Your task to perform on an android device: Show me the alarms in the clock app Image 0: 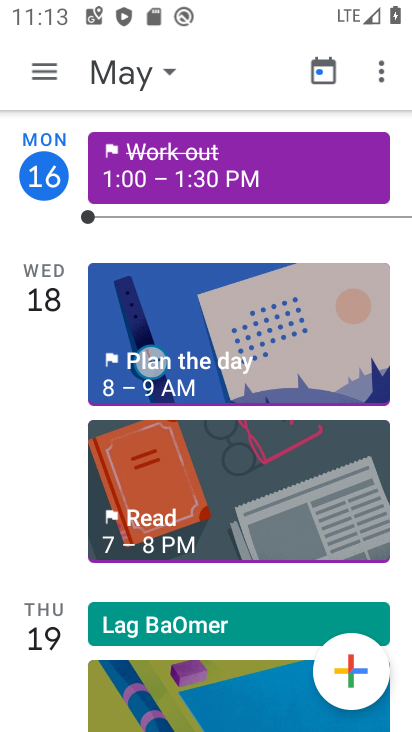
Step 0: press home button
Your task to perform on an android device: Show me the alarms in the clock app Image 1: 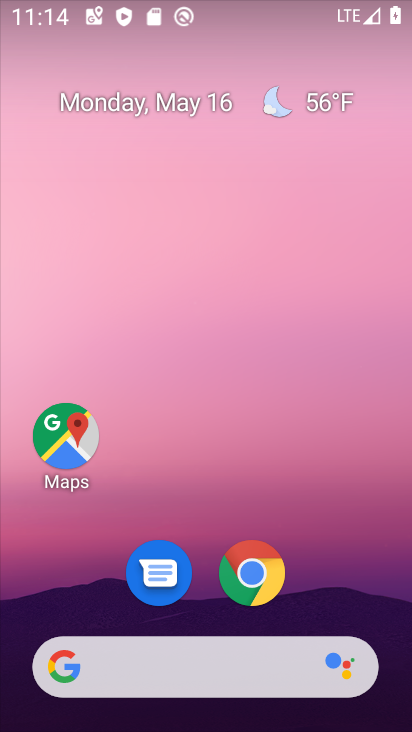
Step 1: drag from (201, 720) to (290, 2)
Your task to perform on an android device: Show me the alarms in the clock app Image 2: 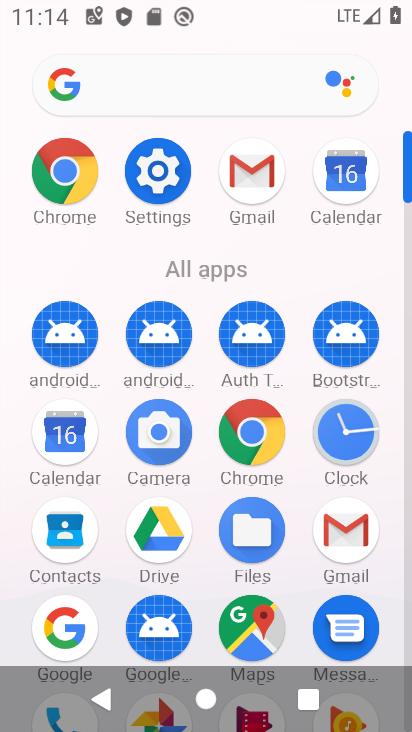
Step 2: click (355, 435)
Your task to perform on an android device: Show me the alarms in the clock app Image 3: 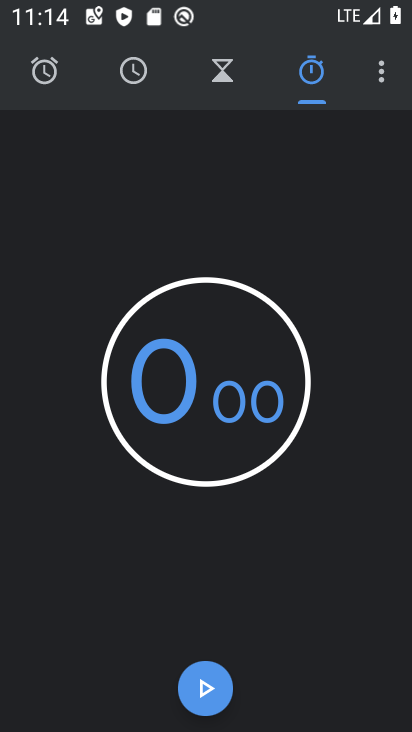
Step 3: click (49, 93)
Your task to perform on an android device: Show me the alarms in the clock app Image 4: 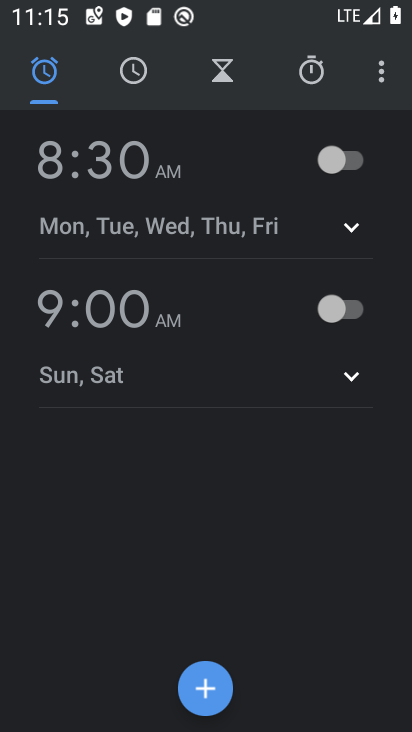
Step 4: task complete